Your task to perform on an android device: check the backup settings in the google photos Image 0: 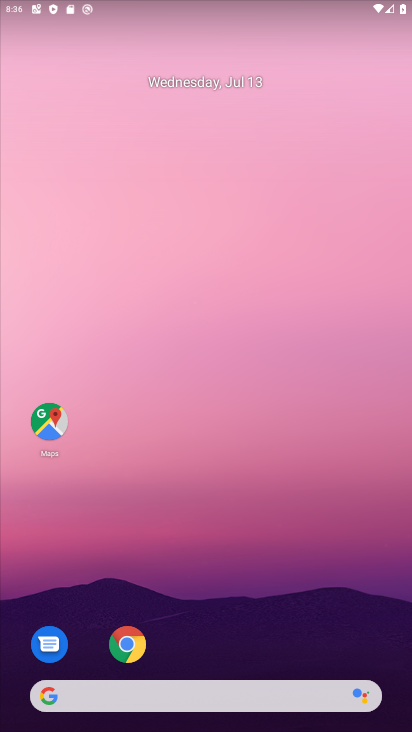
Step 0: drag from (236, 713) to (231, 112)
Your task to perform on an android device: check the backup settings in the google photos Image 1: 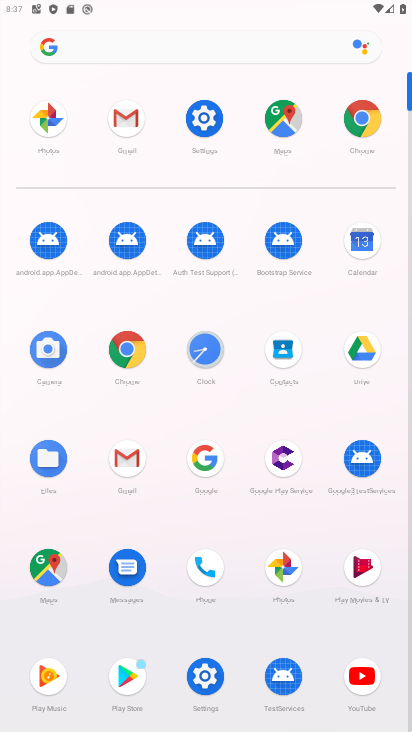
Step 1: click (286, 562)
Your task to perform on an android device: check the backup settings in the google photos Image 2: 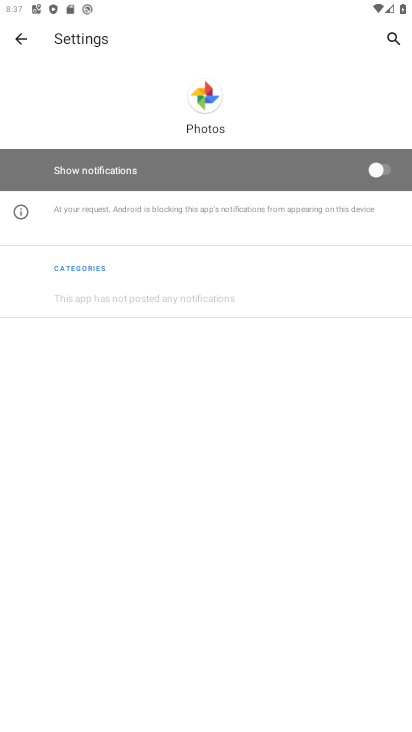
Step 2: click (23, 33)
Your task to perform on an android device: check the backup settings in the google photos Image 3: 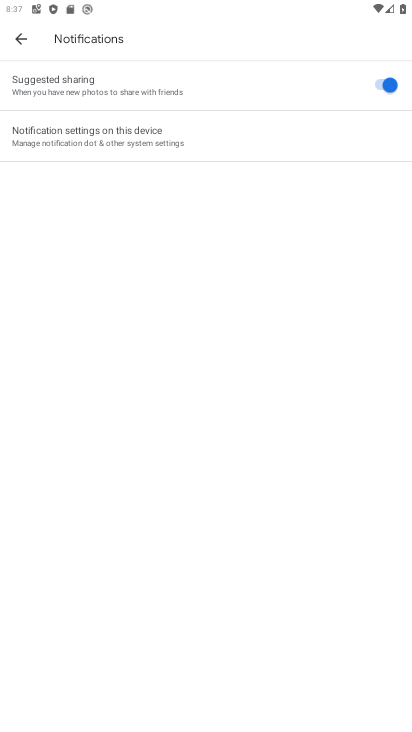
Step 3: click (19, 36)
Your task to perform on an android device: check the backup settings in the google photos Image 4: 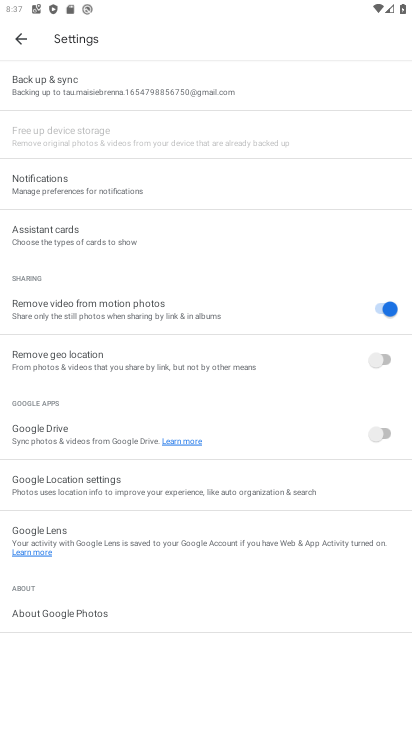
Step 4: click (81, 70)
Your task to perform on an android device: check the backup settings in the google photos Image 5: 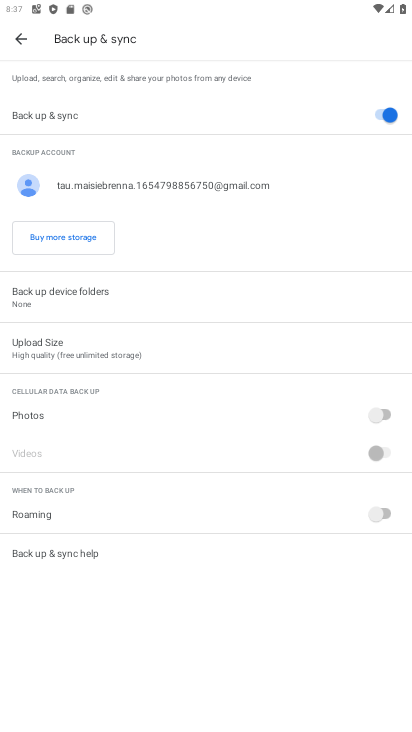
Step 5: task complete